Your task to perform on an android device: Open network settings Image 0: 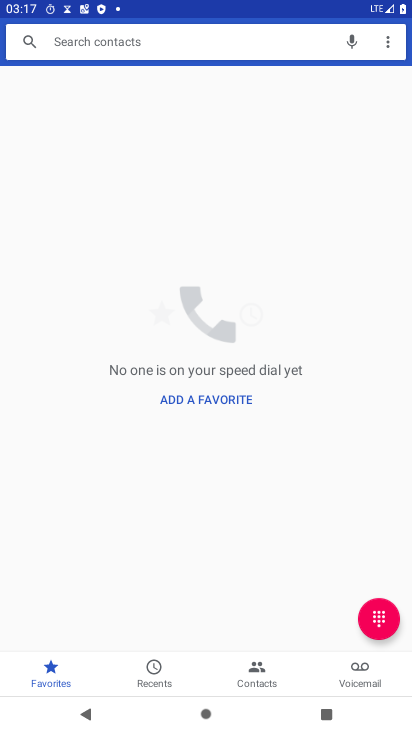
Step 0: press home button
Your task to perform on an android device: Open network settings Image 1: 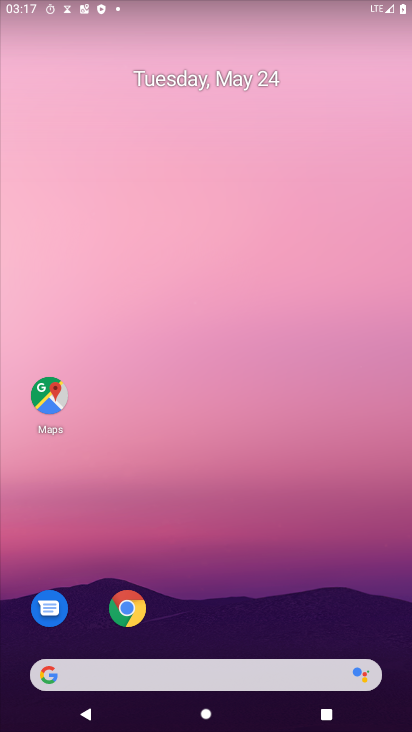
Step 1: drag from (242, 615) to (187, 205)
Your task to perform on an android device: Open network settings Image 2: 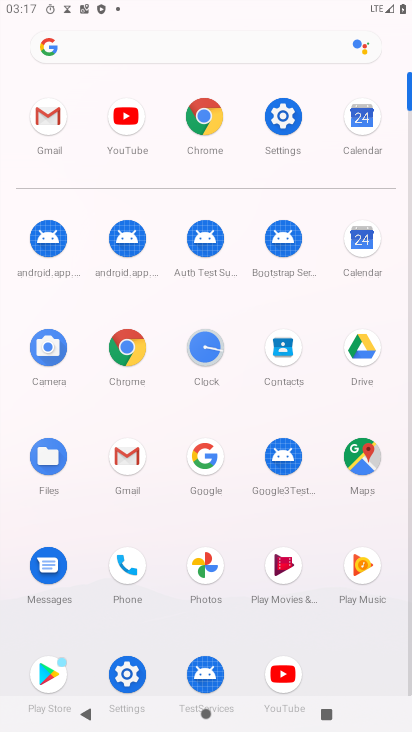
Step 2: click (298, 124)
Your task to perform on an android device: Open network settings Image 3: 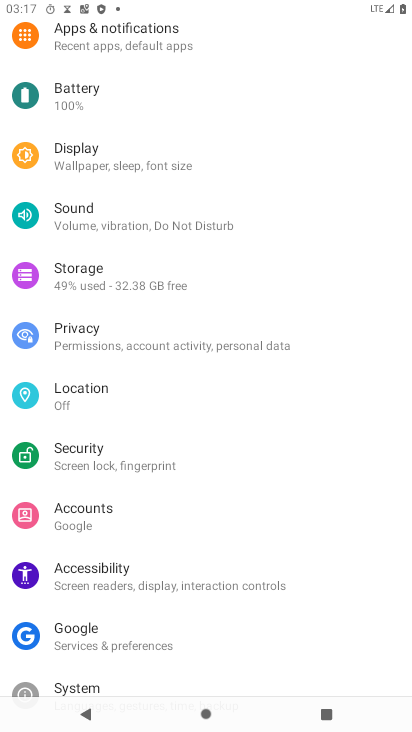
Step 3: drag from (243, 94) to (304, 619)
Your task to perform on an android device: Open network settings Image 4: 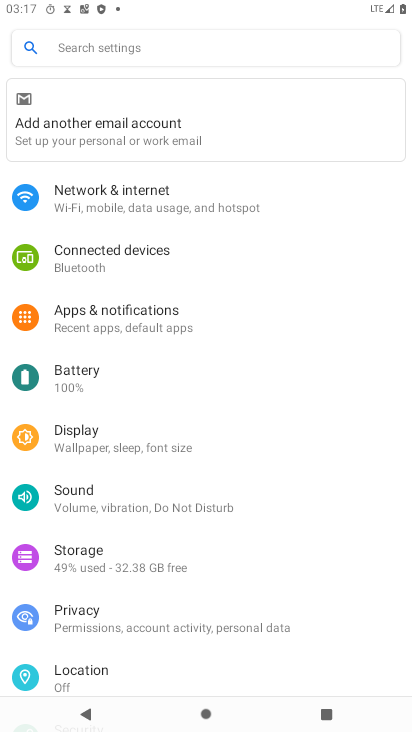
Step 4: click (193, 187)
Your task to perform on an android device: Open network settings Image 5: 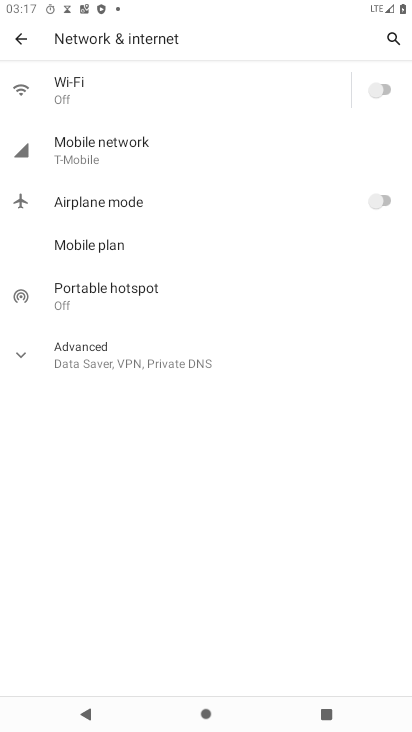
Step 5: task complete